Your task to perform on an android device: Show me popular videos on Youtube Image 0: 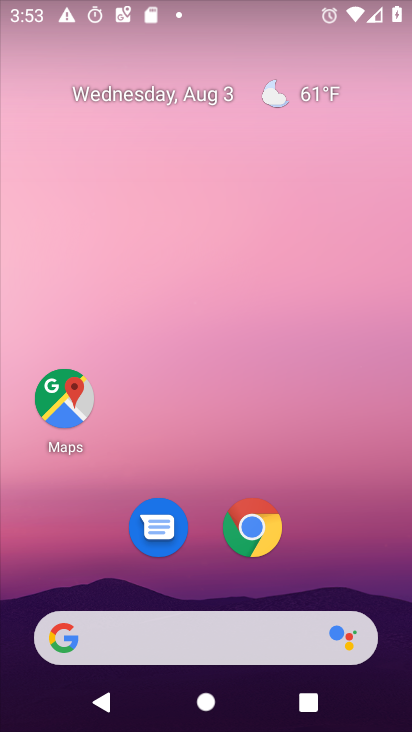
Step 0: drag from (331, 534) to (262, 49)
Your task to perform on an android device: Show me popular videos on Youtube Image 1: 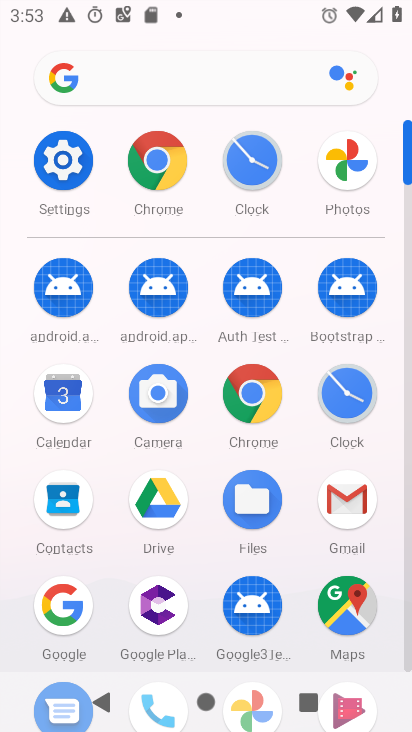
Step 1: drag from (301, 543) to (319, 215)
Your task to perform on an android device: Show me popular videos on Youtube Image 2: 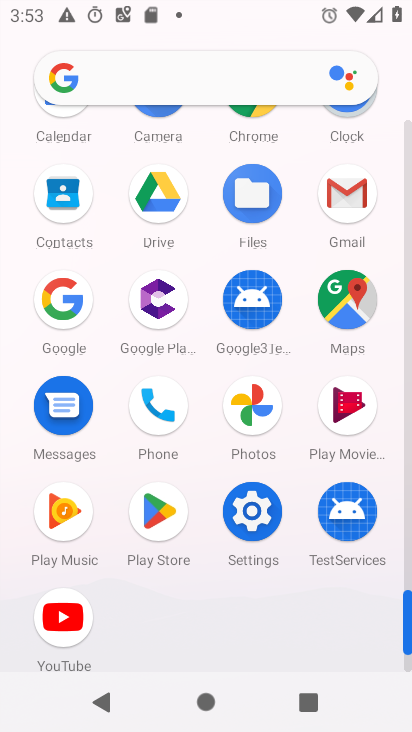
Step 2: click (64, 614)
Your task to perform on an android device: Show me popular videos on Youtube Image 3: 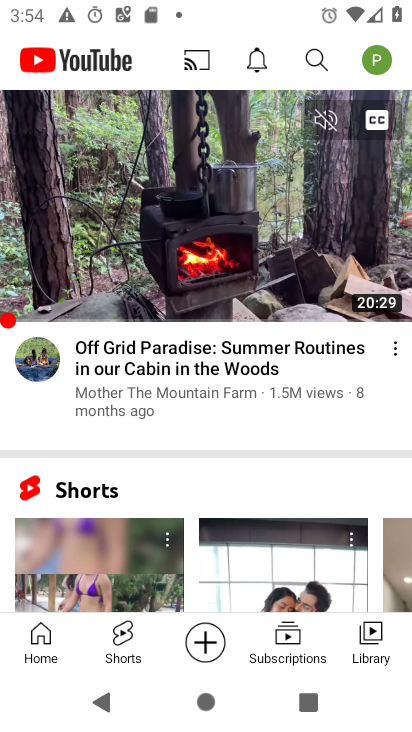
Step 3: click (46, 631)
Your task to perform on an android device: Show me popular videos on Youtube Image 4: 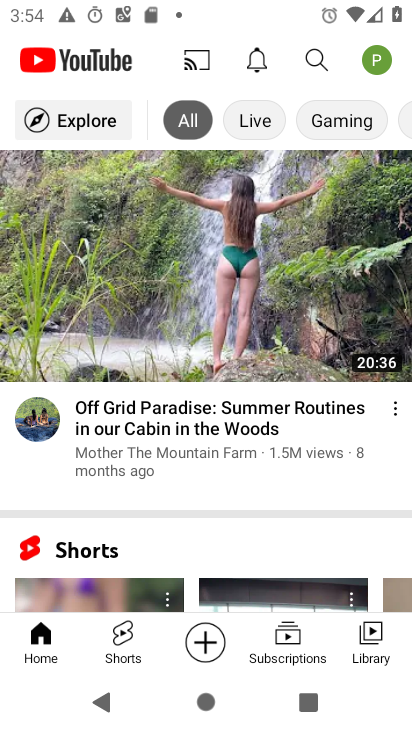
Step 4: click (88, 124)
Your task to perform on an android device: Show me popular videos on Youtube Image 5: 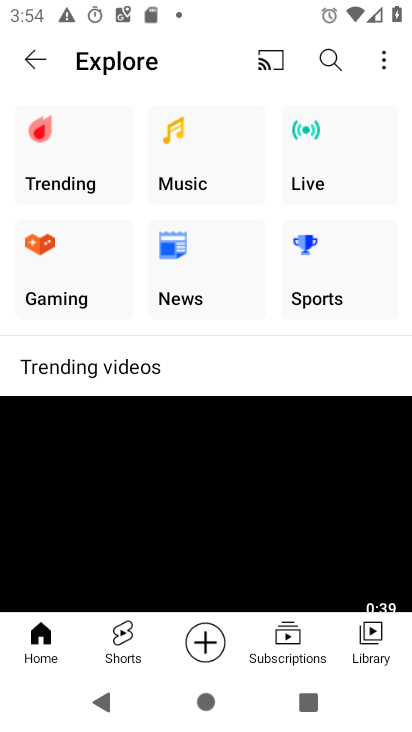
Step 5: task complete